Your task to perform on an android device: delete a single message in the gmail app Image 0: 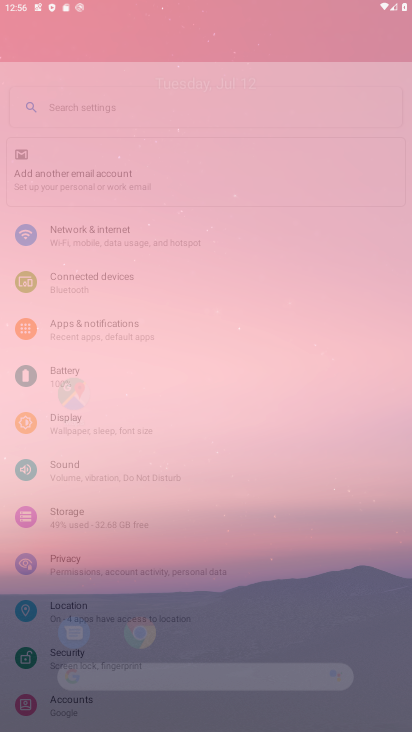
Step 0: drag from (217, 709) to (217, 354)
Your task to perform on an android device: delete a single message in the gmail app Image 1: 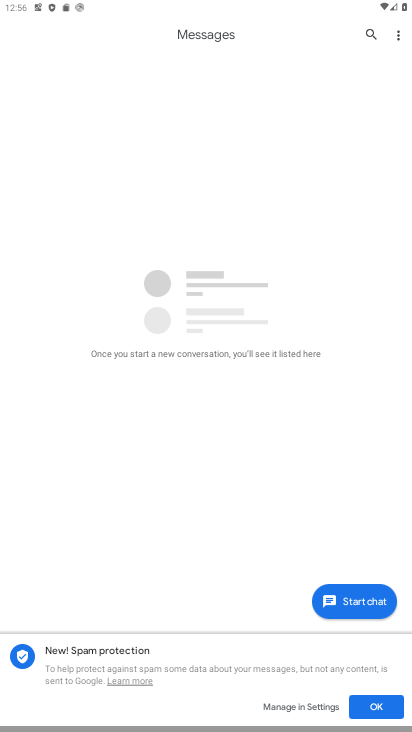
Step 1: click (216, 160)
Your task to perform on an android device: delete a single message in the gmail app Image 2: 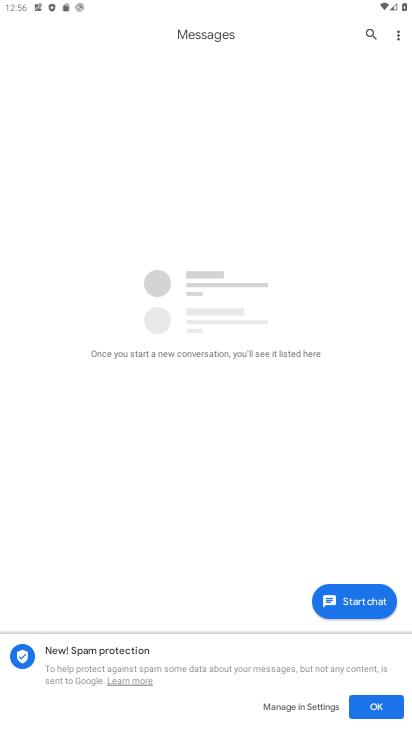
Step 2: press home button
Your task to perform on an android device: delete a single message in the gmail app Image 3: 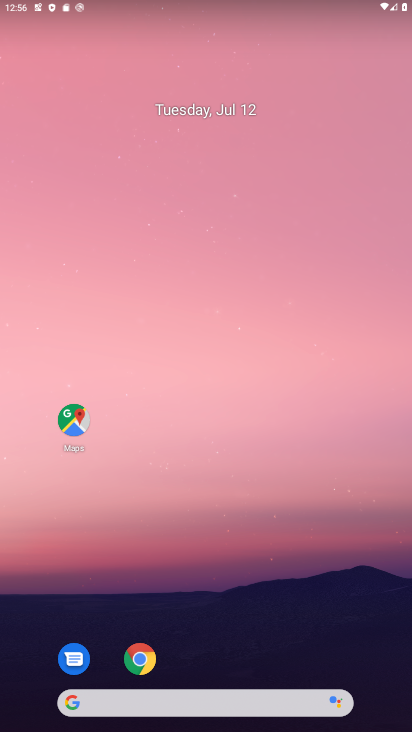
Step 3: drag from (219, 714) to (219, 93)
Your task to perform on an android device: delete a single message in the gmail app Image 4: 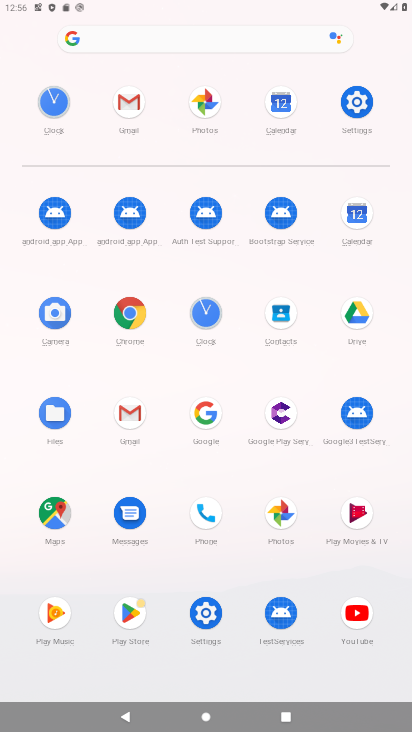
Step 4: click (133, 418)
Your task to perform on an android device: delete a single message in the gmail app Image 5: 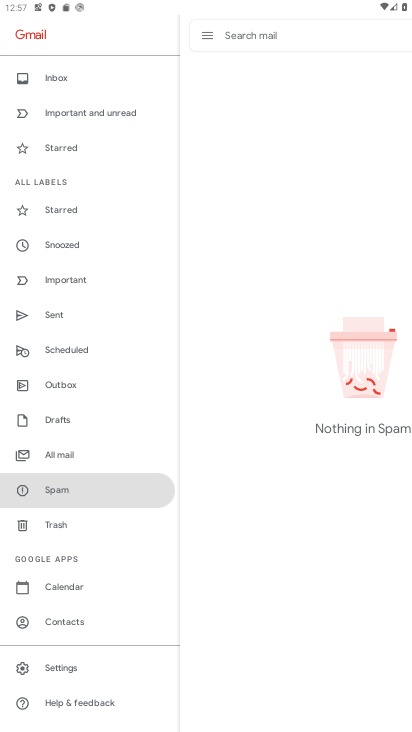
Step 5: click (55, 76)
Your task to perform on an android device: delete a single message in the gmail app Image 6: 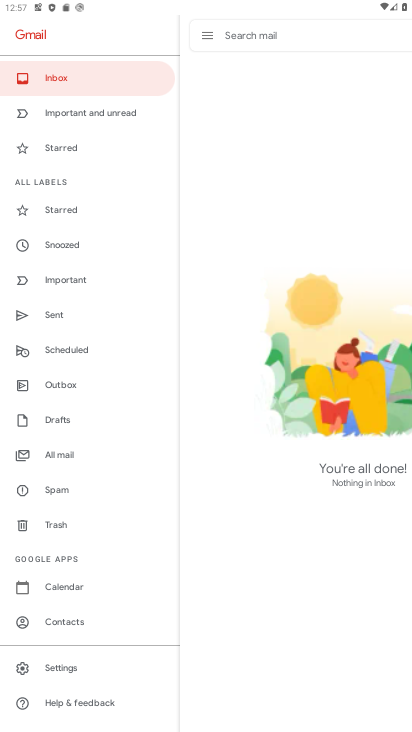
Step 6: task complete